Your task to perform on an android device: Go to battery settings Image 0: 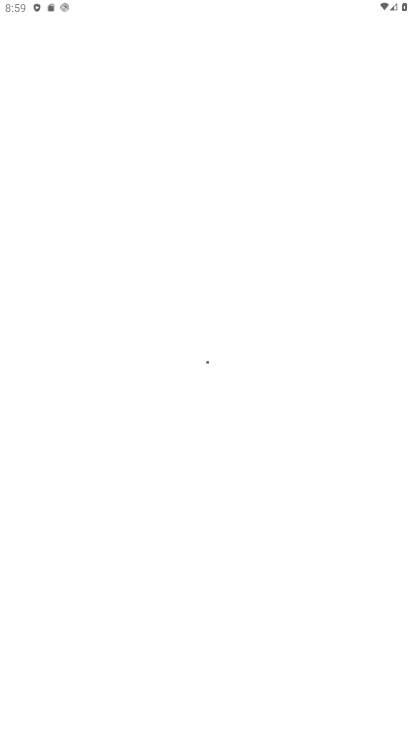
Step 0: press home button
Your task to perform on an android device: Go to battery settings Image 1: 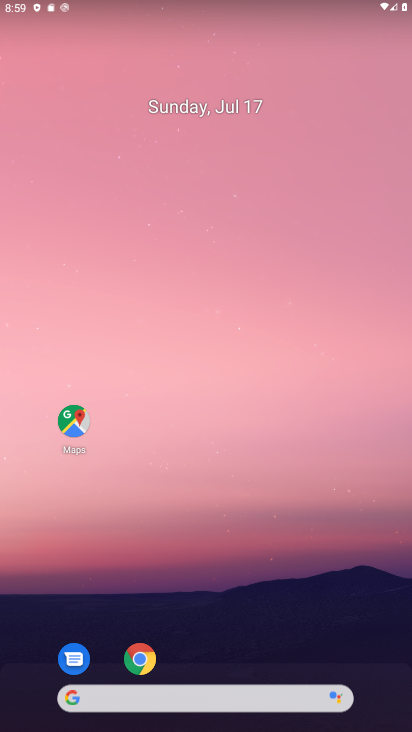
Step 1: drag from (217, 703) to (219, 49)
Your task to perform on an android device: Go to battery settings Image 2: 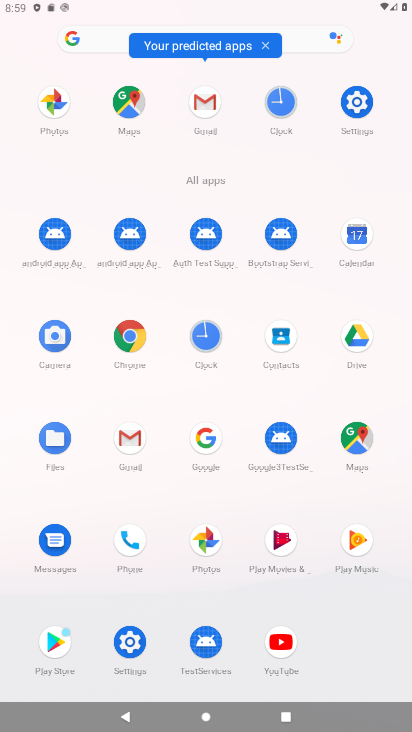
Step 2: click (373, 100)
Your task to perform on an android device: Go to battery settings Image 3: 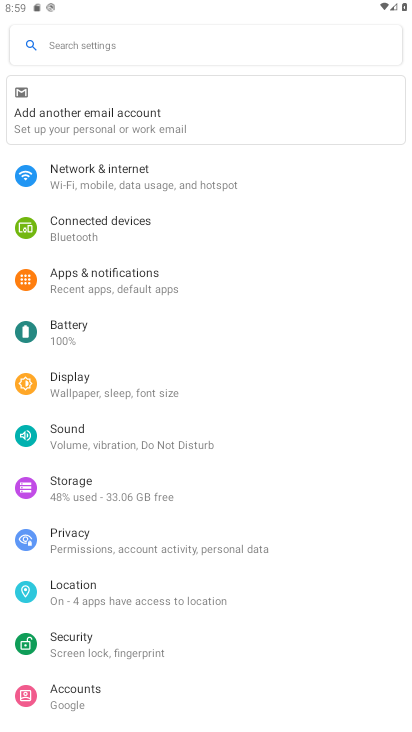
Step 3: click (62, 328)
Your task to perform on an android device: Go to battery settings Image 4: 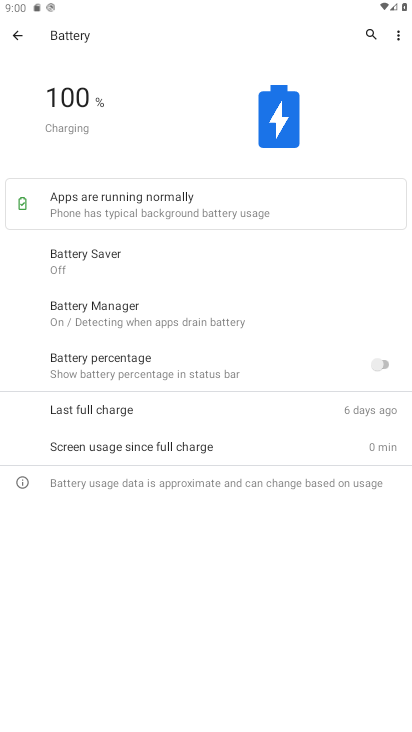
Step 4: task complete